Your task to perform on an android device: turn on data saver in the chrome app Image 0: 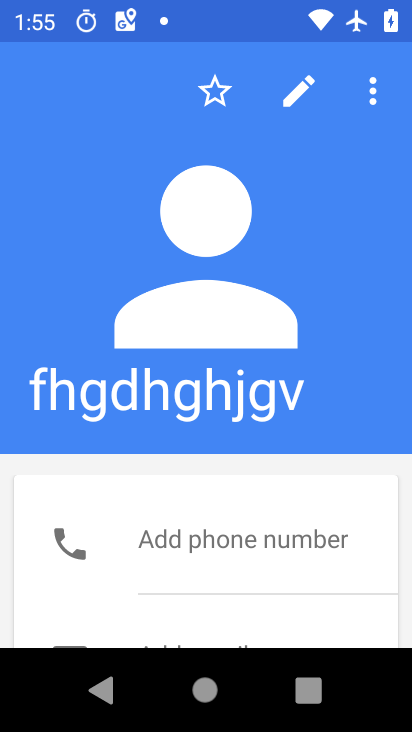
Step 0: press home button
Your task to perform on an android device: turn on data saver in the chrome app Image 1: 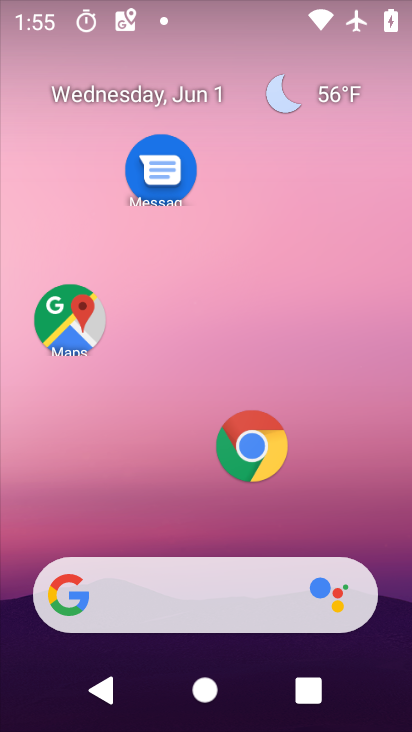
Step 1: click (244, 444)
Your task to perform on an android device: turn on data saver in the chrome app Image 2: 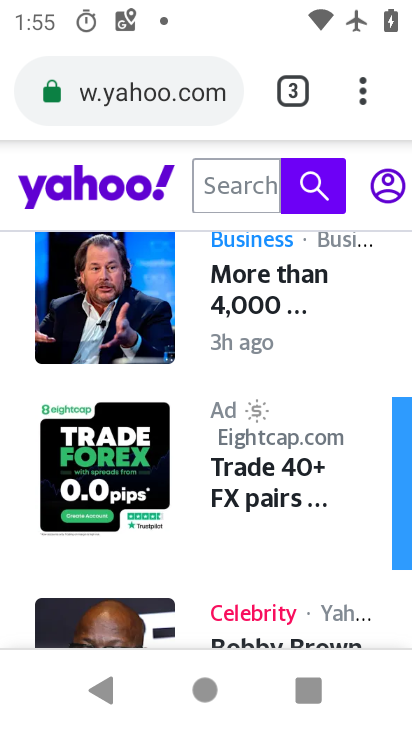
Step 2: click (287, 91)
Your task to perform on an android device: turn on data saver in the chrome app Image 3: 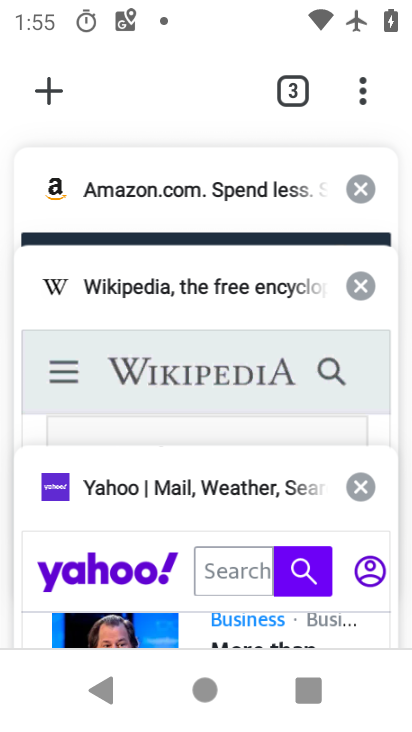
Step 3: click (352, 193)
Your task to perform on an android device: turn on data saver in the chrome app Image 4: 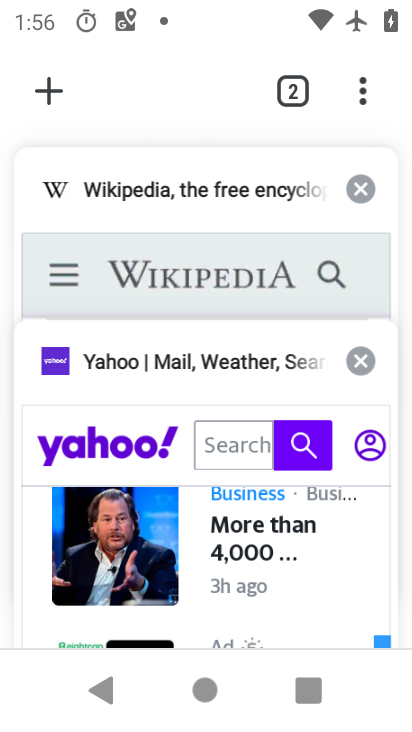
Step 4: click (350, 188)
Your task to perform on an android device: turn on data saver in the chrome app Image 5: 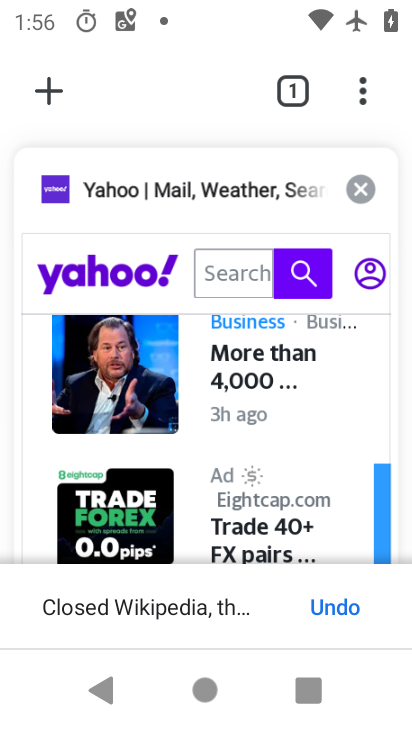
Step 5: click (366, 192)
Your task to perform on an android device: turn on data saver in the chrome app Image 6: 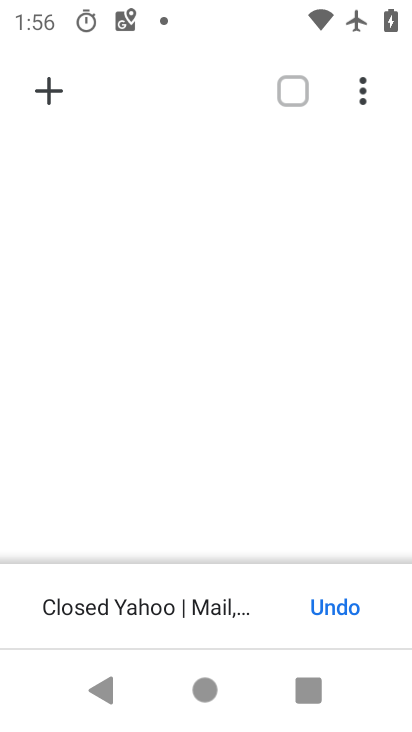
Step 6: click (47, 95)
Your task to perform on an android device: turn on data saver in the chrome app Image 7: 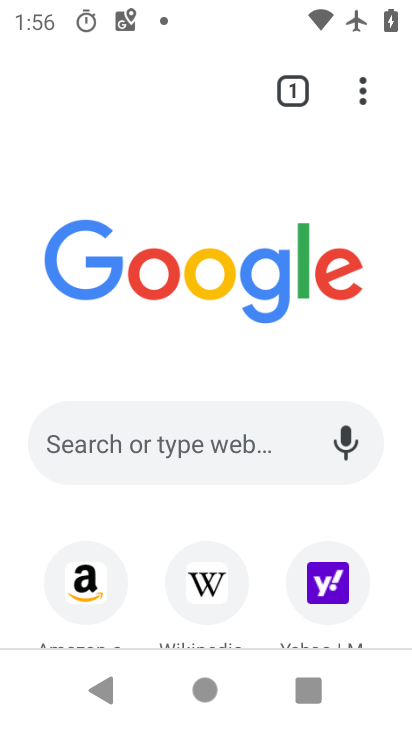
Step 7: click (368, 83)
Your task to perform on an android device: turn on data saver in the chrome app Image 8: 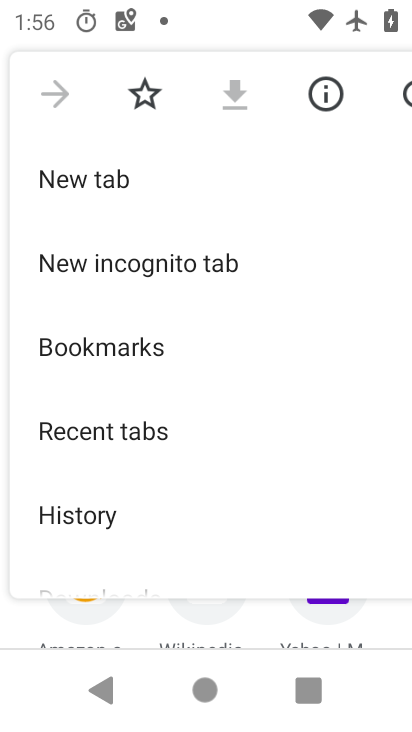
Step 8: drag from (12, 492) to (177, 129)
Your task to perform on an android device: turn on data saver in the chrome app Image 9: 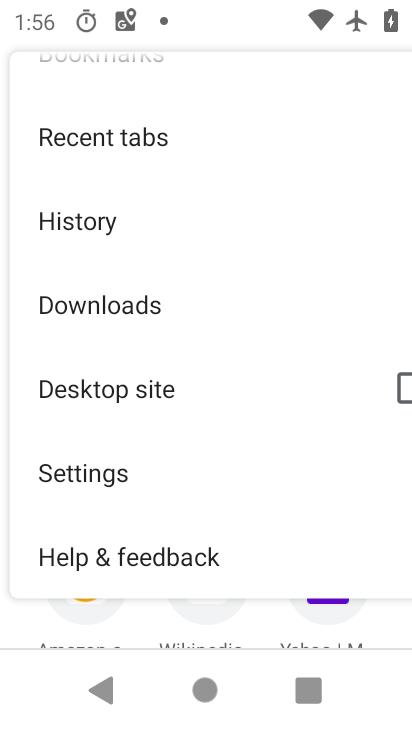
Step 9: click (75, 475)
Your task to perform on an android device: turn on data saver in the chrome app Image 10: 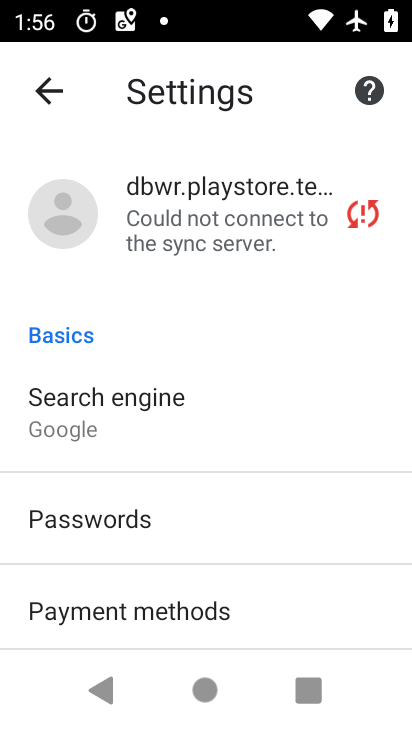
Step 10: drag from (29, 562) to (252, 208)
Your task to perform on an android device: turn on data saver in the chrome app Image 11: 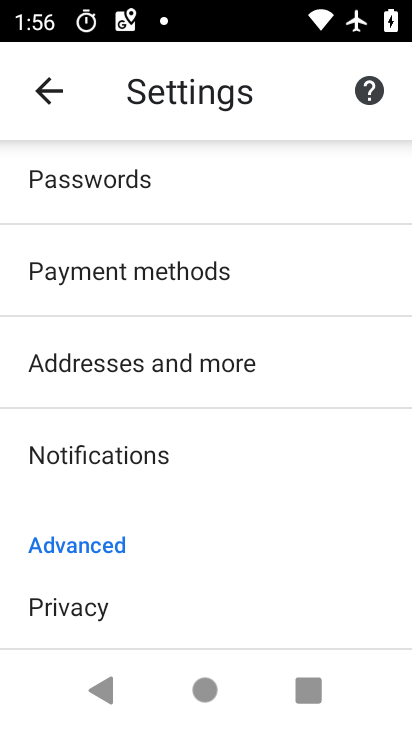
Step 11: drag from (32, 600) to (242, 234)
Your task to perform on an android device: turn on data saver in the chrome app Image 12: 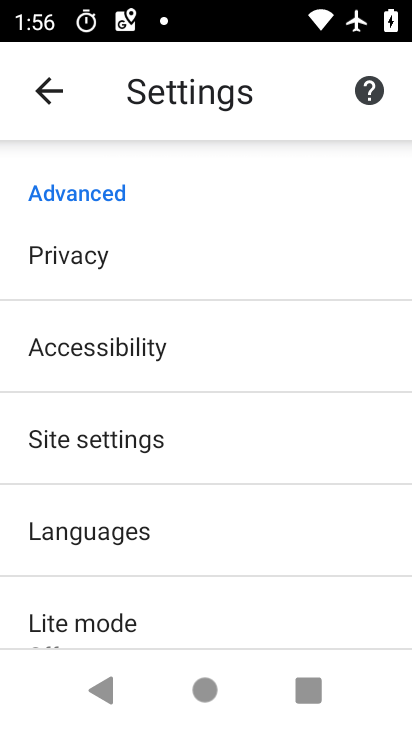
Step 12: click (67, 622)
Your task to perform on an android device: turn on data saver in the chrome app Image 13: 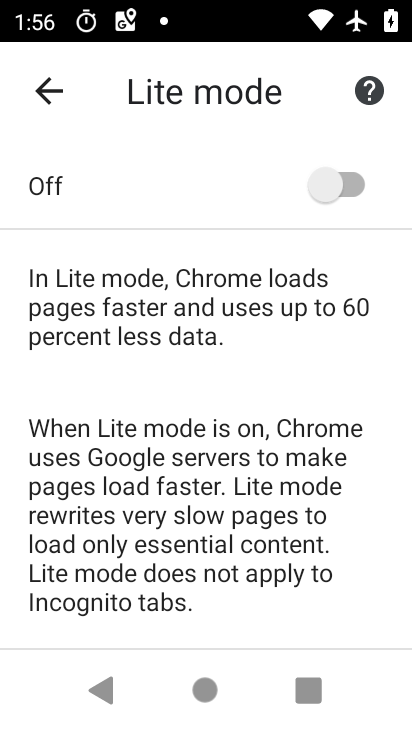
Step 13: click (336, 195)
Your task to perform on an android device: turn on data saver in the chrome app Image 14: 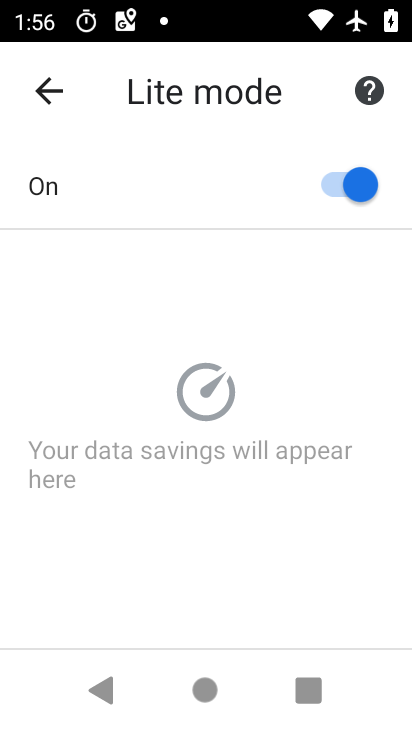
Step 14: task complete